Your task to perform on an android device: toggle improve location accuracy Image 0: 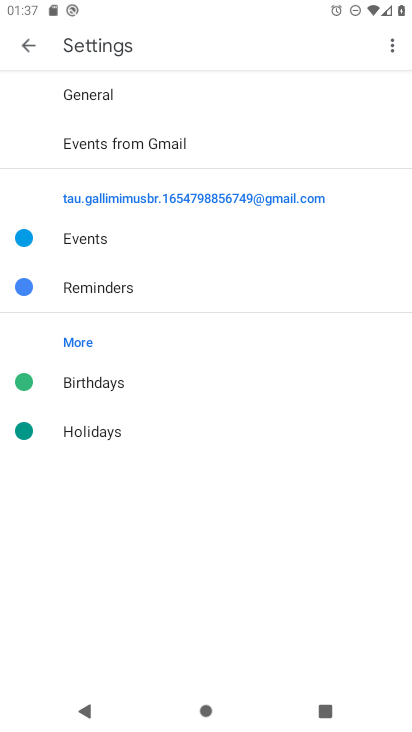
Step 0: press home button
Your task to perform on an android device: toggle improve location accuracy Image 1: 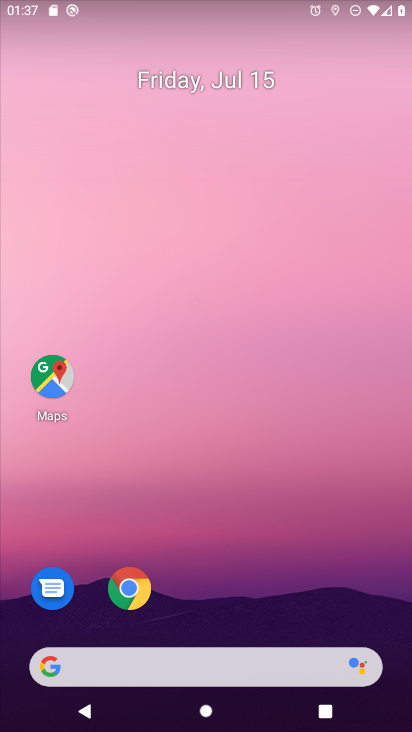
Step 1: drag from (333, 634) to (294, 180)
Your task to perform on an android device: toggle improve location accuracy Image 2: 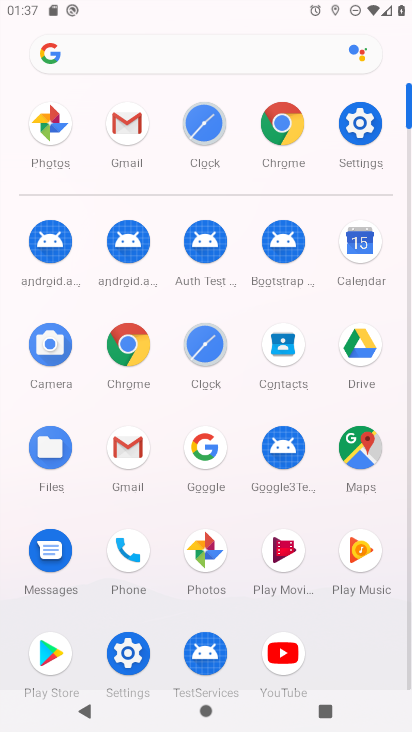
Step 2: click (125, 652)
Your task to perform on an android device: toggle improve location accuracy Image 3: 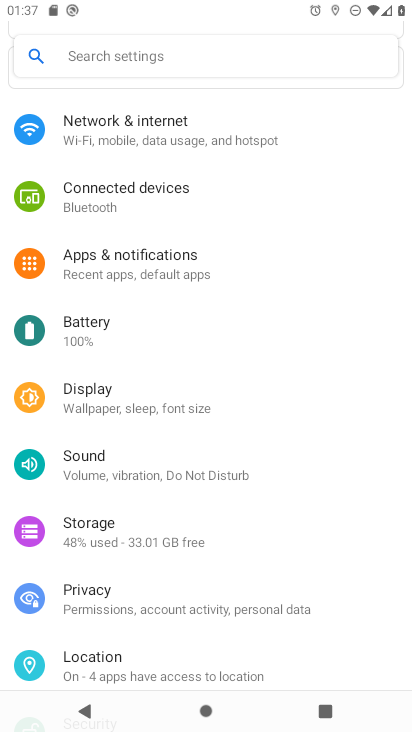
Step 3: drag from (269, 642) to (271, 235)
Your task to perform on an android device: toggle improve location accuracy Image 4: 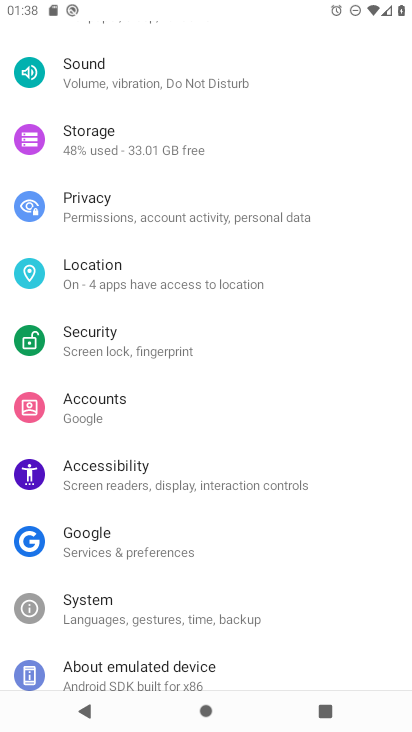
Step 4: click (126, 282)
Your task to perform on an android device: toggle improve location accuracy Image 5: 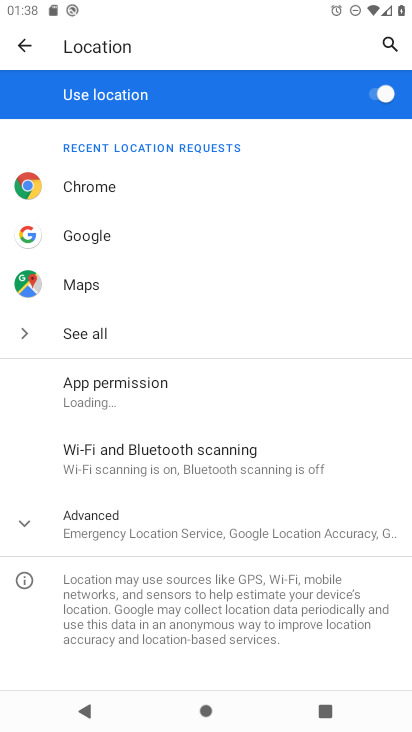
Step 5: click (24, 524)
Your task to perform on an android device: toggle improve location accuracy Image 6: 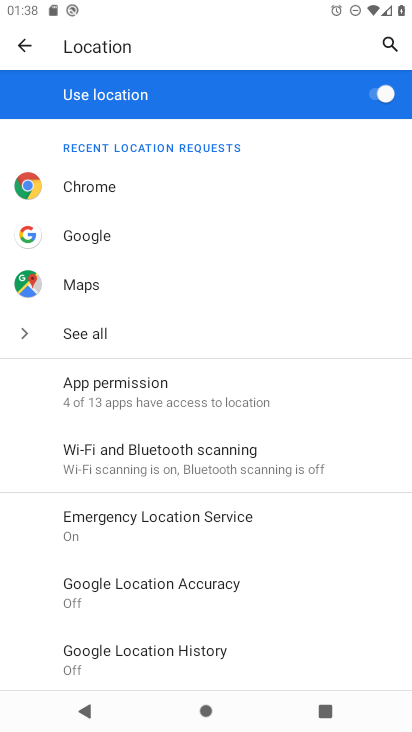
Step 6: click (132, 591)
Your task to perform on an android device: toggle improve location accuracy Image 7: 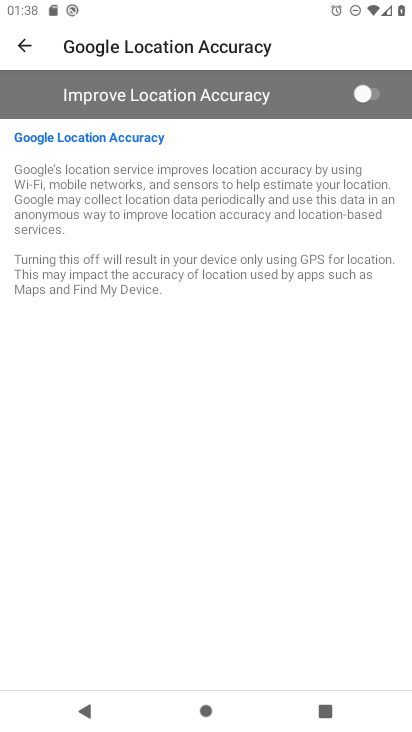
Step 7: click (370, 93)
Your task to perform on an android device: toggle improve location accuracy Image 8: 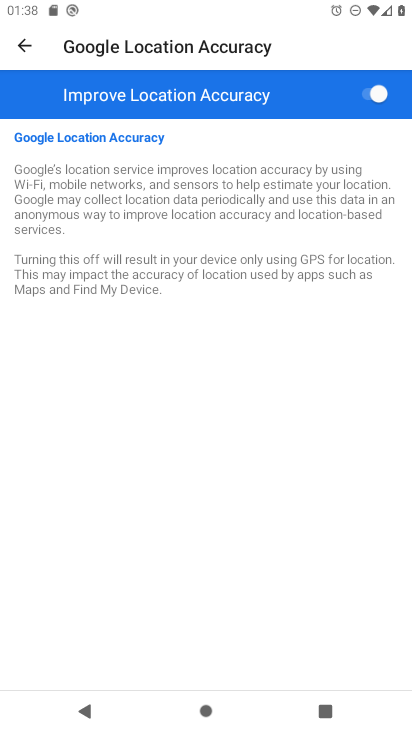
Step 8: task complete